Your task to perform on an android device: Open calendar and show me the third week of next month Image 0: 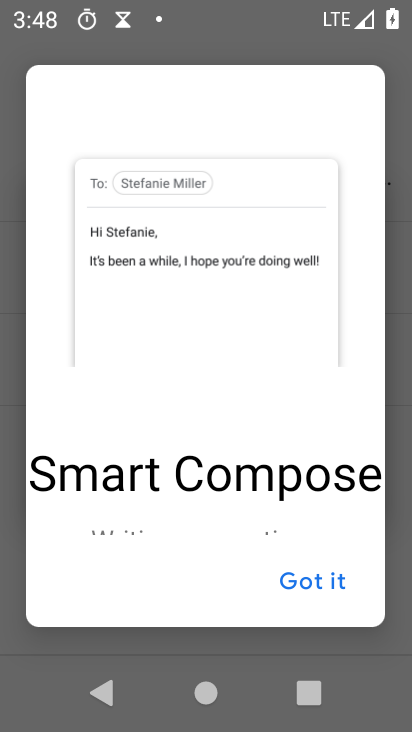
Step 0: press home button
Your task to perform on an android device: Open calendar and show me the third week of next month Image 1: 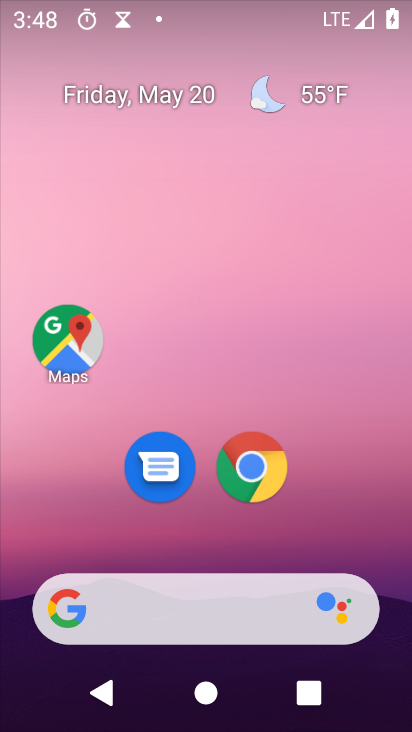
Step 1: drag from (202, 545) to (221, 33)
Your task to perform on an android device: Open calendar and show me the third week of next month Image 2: 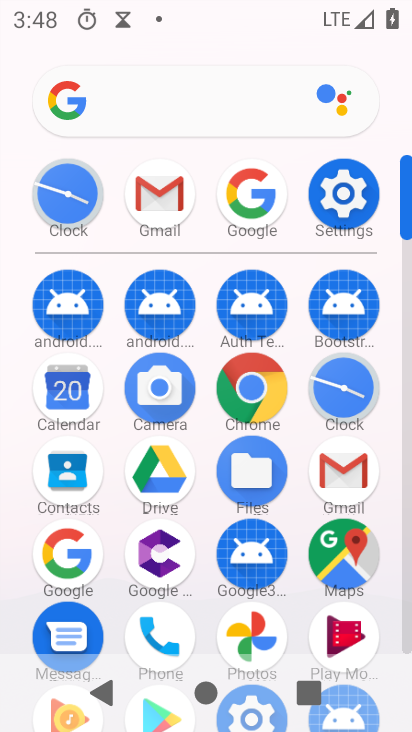
Step 2: click (64, 390)
Your task to perform on an android device: Open calendar and show me the third week of next month Image 3: 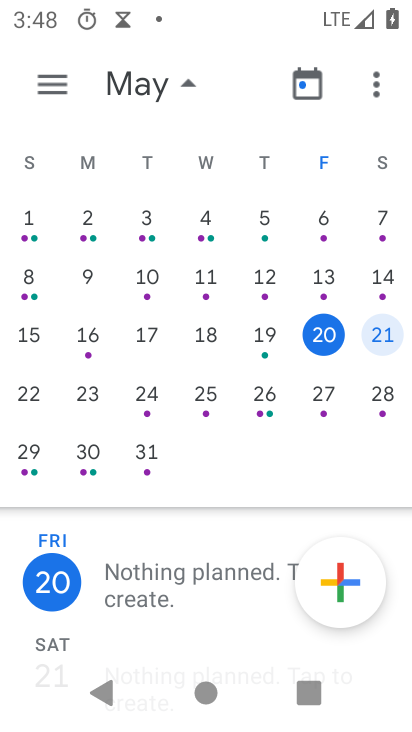
Step 3: drag from (386, 267) to (12, 297)
Your task to perform on an android device: Open calendar and show me the third week of next month Image 4: 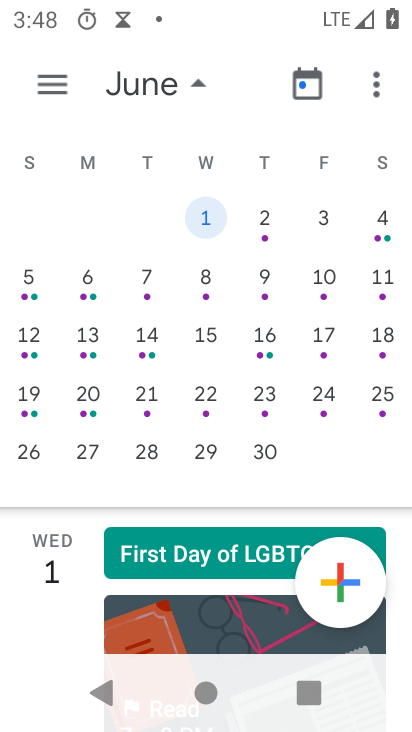
Step 4: click (34, 343)
Your task to perform on an android device: Open calendar and show me the third week of next month Image 5: 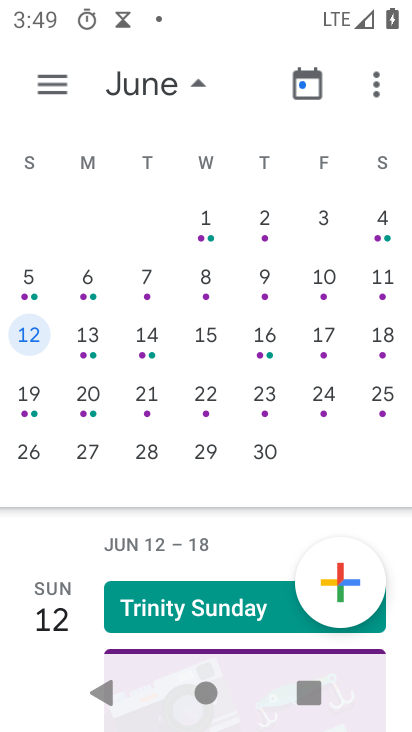
Step 5: task complete